Your task to perform on an android device: Go to sound settings Image 0: 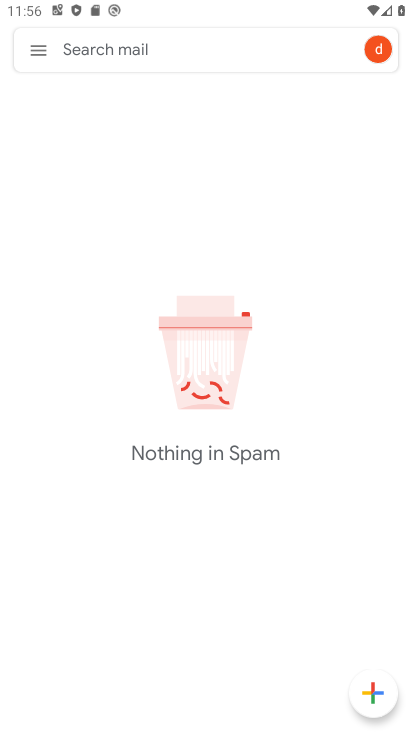
Step 0: press home button
Your task to perform on an android device: Go to sound settings Image 1: 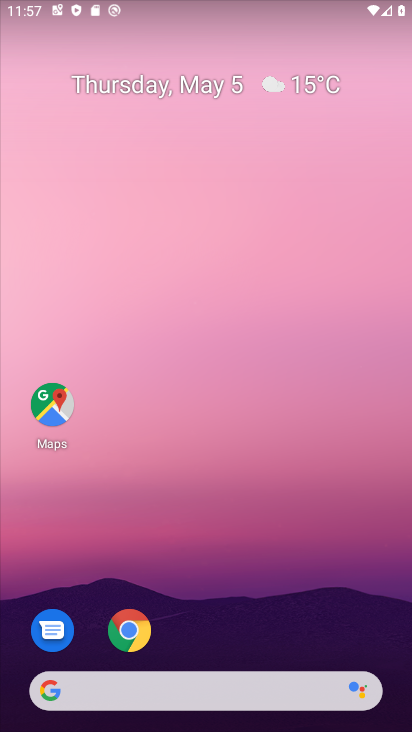
Step 1: drag from (172, 594) to (199, 14)
Your task to perform on an android device: Go to sound settings Image 2: 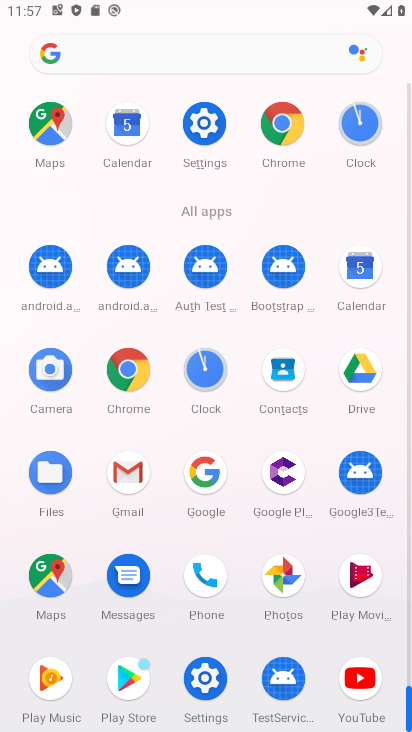
Step 2: click (177, 135)
Your task to perform on an android device: Go to sound settings Image 3: 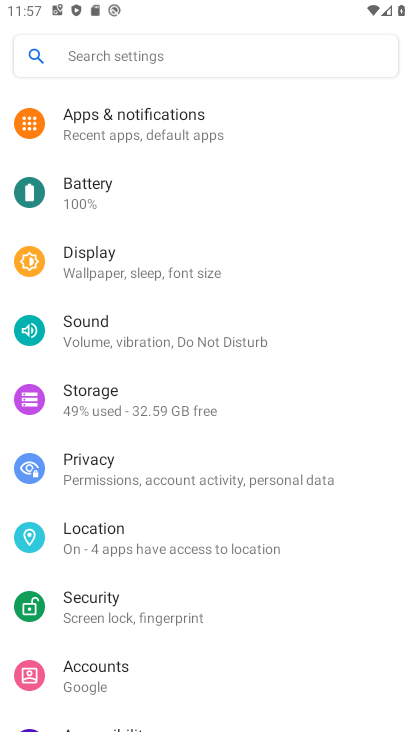
Step 3: click (114, 328)
Your task to perform on an android device: Go to sound settings Image 4: 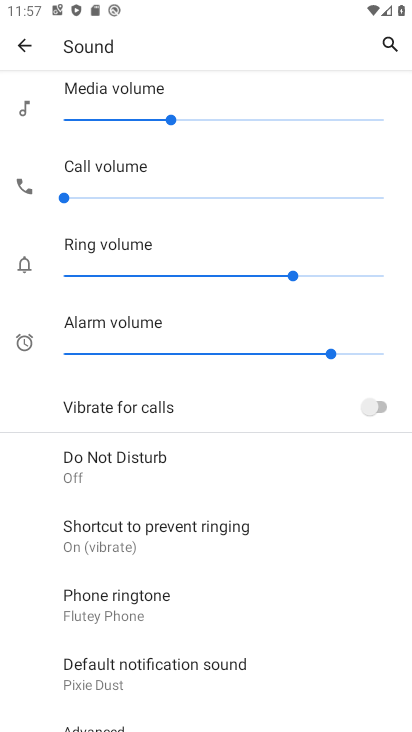
Step 4: task complete